Your task to perform on an android device: Is it going to rain this weekend? Image 0: 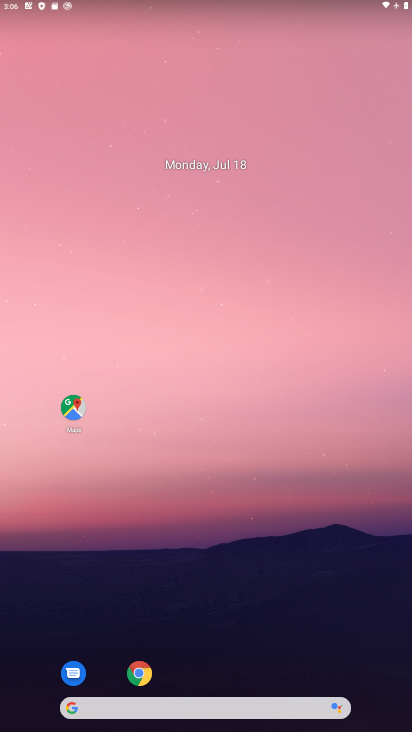
Step 0: drag from (205, 654) to (197, 153)
Your task to perform on an android device: Is it going to rain this weekend? Image 1: 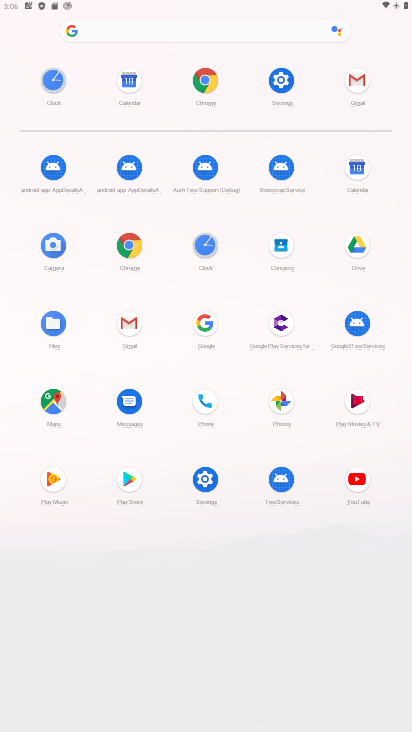
Step 1: click (210, 75)
Your task to perform on an android device: Is it going to rain this weekend? Image 2: 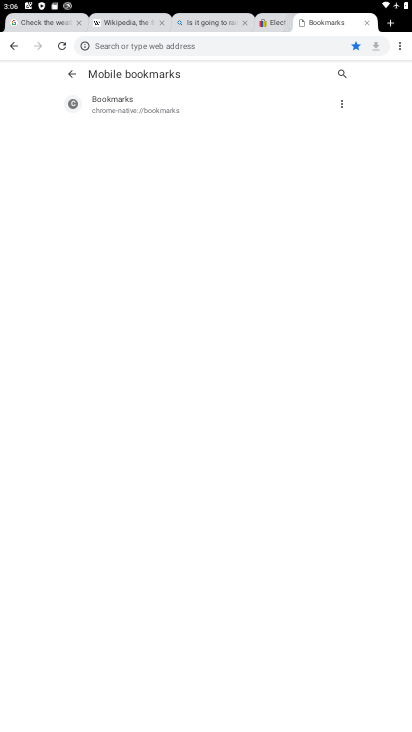
Step 2: click (366, 25)
Your task to perform on an android device: Is it going to rain this weekend? Image 3: 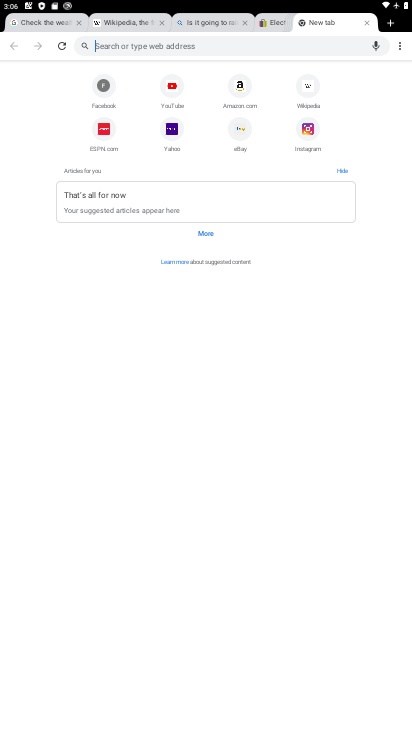
Step 3: click (328, 720)
Your task to perform on an android device: Is it going to rain this weekend? Image 4: 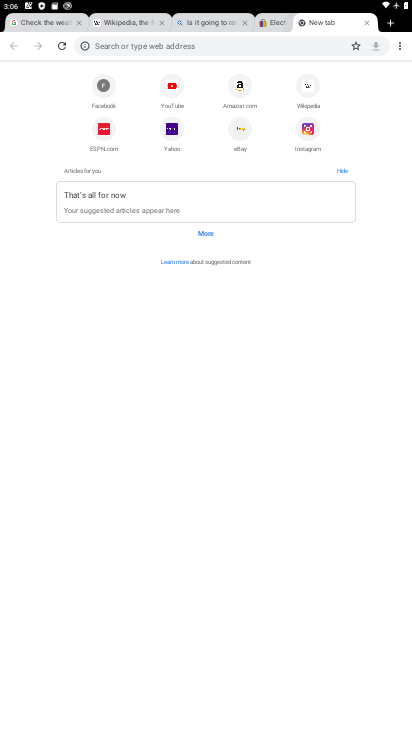
Step 4: click (239, 41)
Your task to perform on an android device: Is it going to rain this weekend? Image 5: 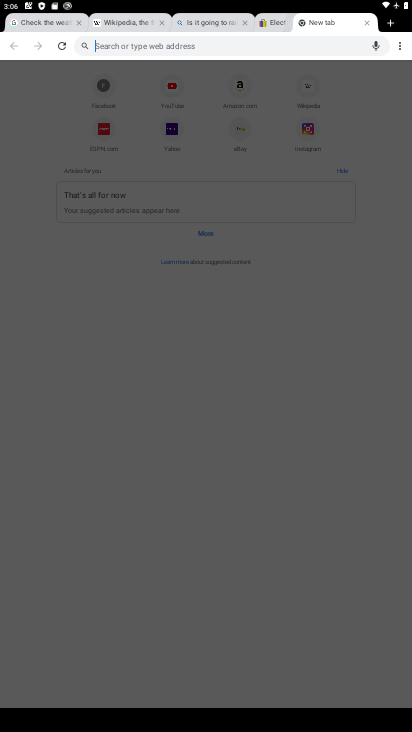
Step 5: type "Is it going to rain this weekend "
Your task to perform on an android device: Is it going to rain this weekend? Image 6: 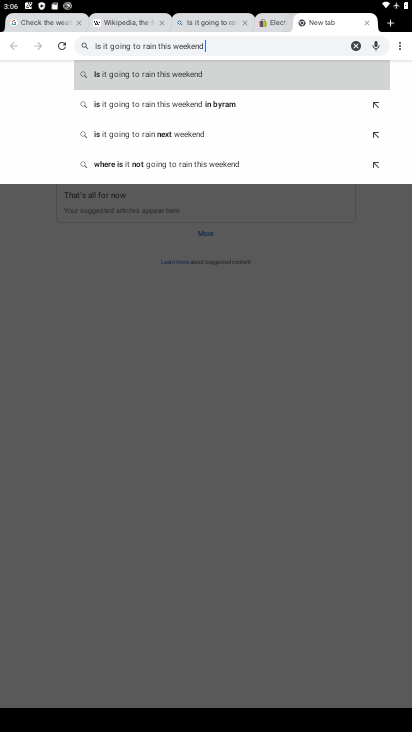
Step 6: click (199, 62)
Your task to perform on an android device: Is it going to rain this weekend? Image 7: 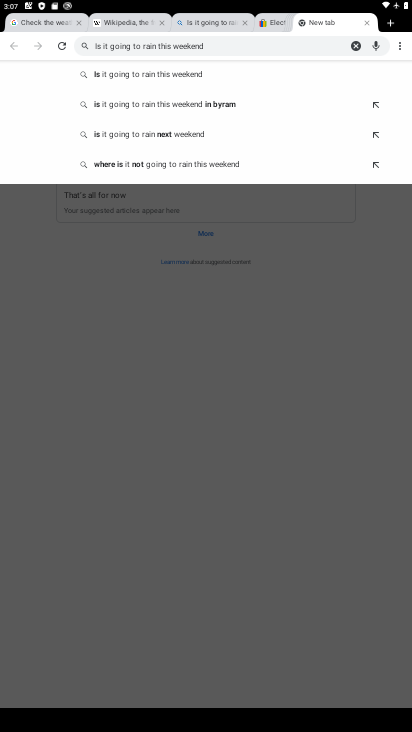
Step 7: click (155, 75)
Your task to perform on an android device: Is it going to rain this weekend? Image 8: 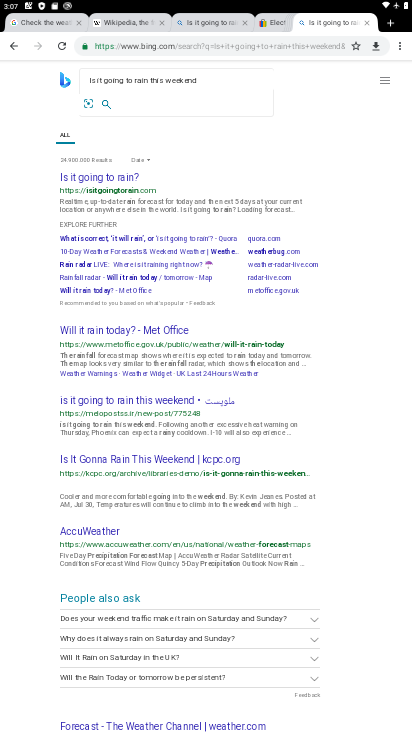
Step 8: task complete